Your task to perform on an android device: toggle pop-ups in chrome Image 0: 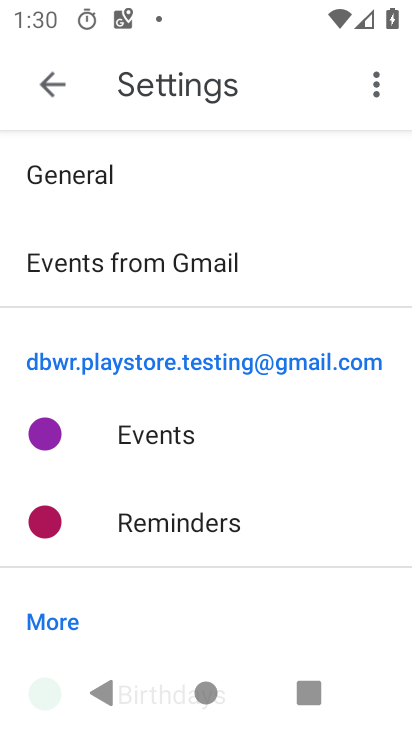
Step 0: press home button
Your task to perform on an android device: toggle pop-ups in chrome Image 1: 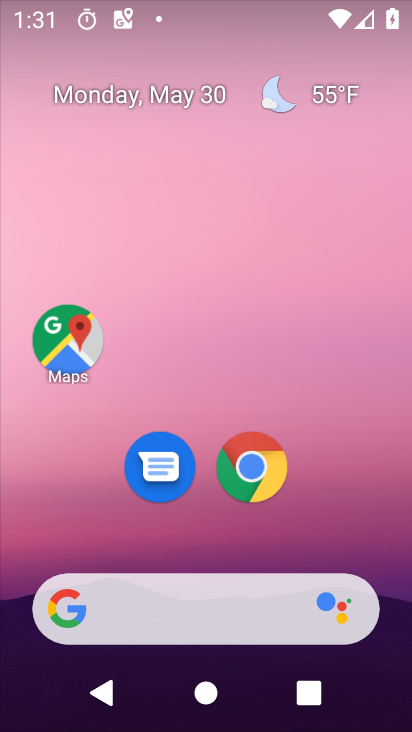
Step 1: click (256, 455)
Your task to perform on an android device: toggle pop-ups in chrome Image 2: 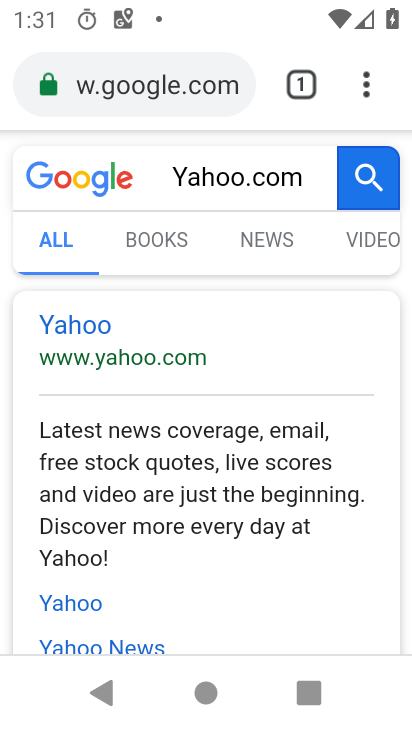
Step 2: click (366, 74)
Your task to perform on an android device: toggle pop-ups in chrome Image 3: 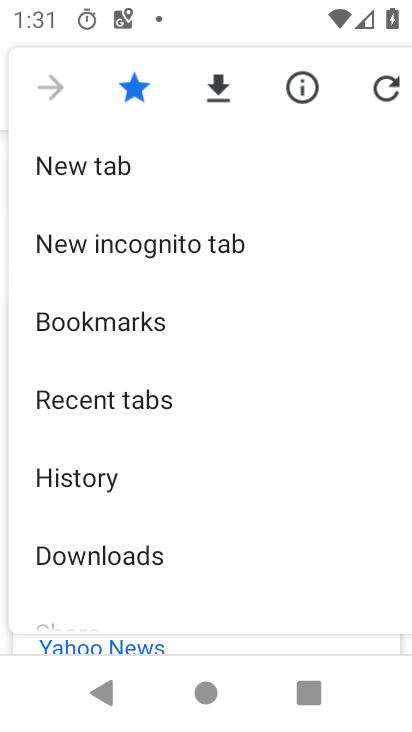
Step 3: drag from (294, 589) to (270, 301)
Your task to perform on an android device: toggle pop-ups in chrome Image 4: 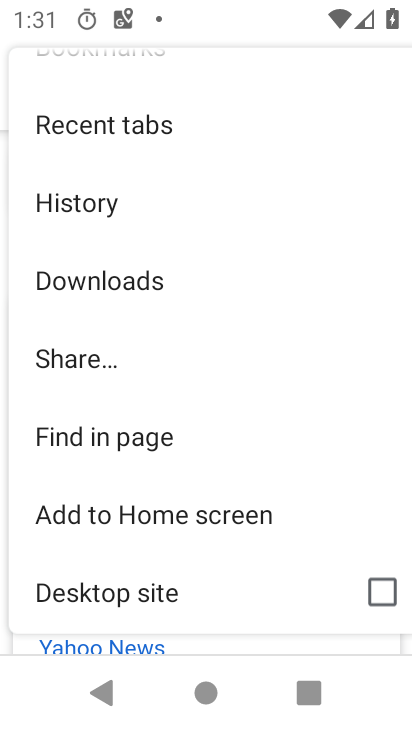
Step 4: drag from (248, 587) to (263, 260)
Your task to perform on an android device: toggle pop-ups in chrome Image 5: 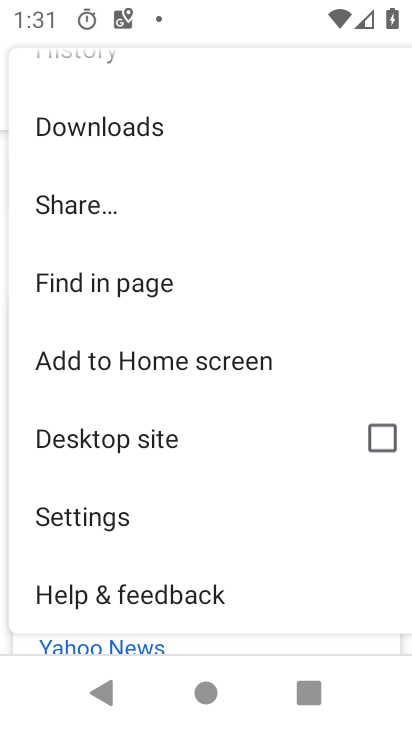
Step 5: click (81, 514)
Your task to perform on an android device: toggle pop-ups in chrome Image 6: 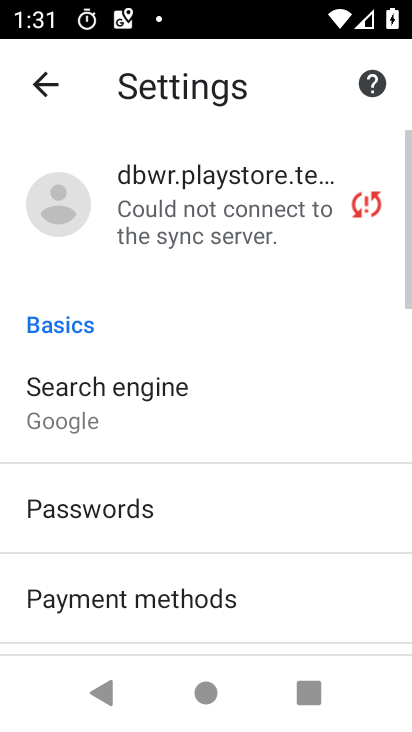
Step 6: drag from (293, 621) to (289, 244)
Your task to perform on an android device: toggle pop-ups in chrome Image 7: 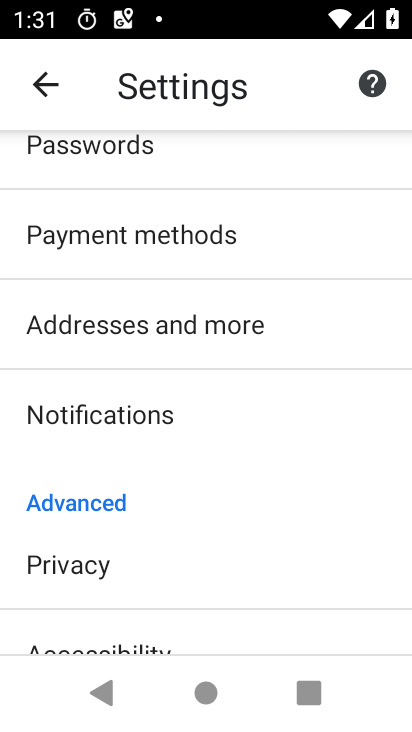
Step 7: drag from (226, 635) to (256, 286)
Your task to perform on an android device: toggle pop-ups in chrome Image 8: 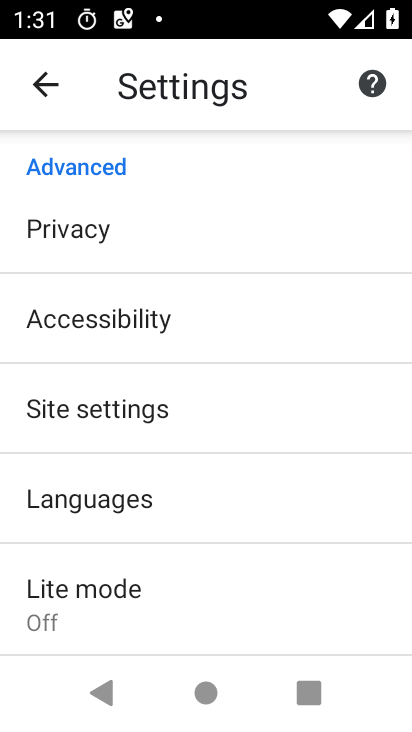
Step 8: click (106, 411)
Your task to perform on an android device: toggle pop-ups in chrome Image 9: 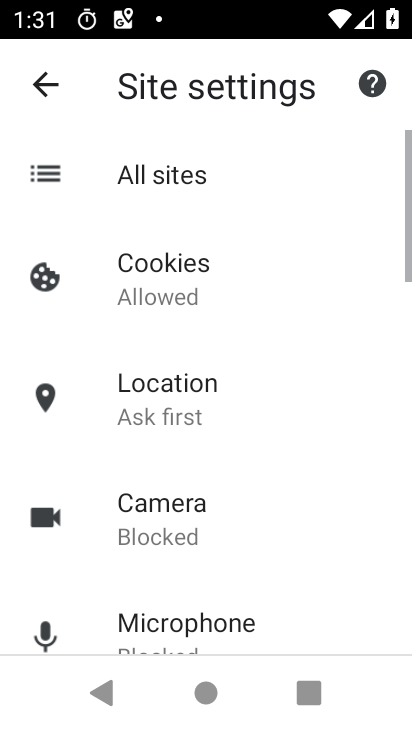
Step 9: drag from (284, 584) to (285, 364)
Your task to perform on an android device: toggle pop-ups in chrome Image 10: 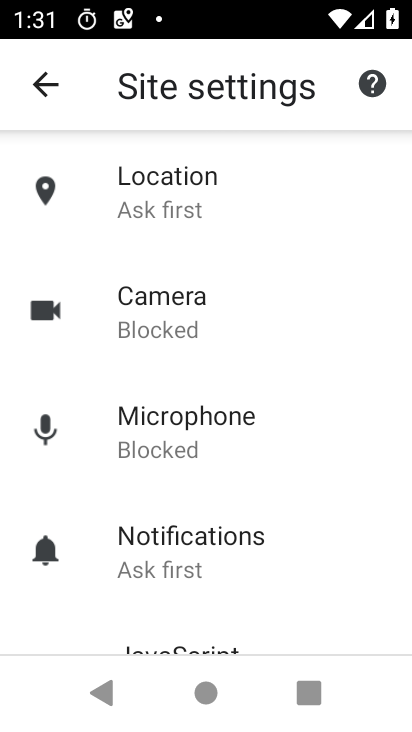
Step 10: drag from (277, 592) to (280, 267)
Your task to perform on an android device: toggle pop-ups in chrome Image 11: 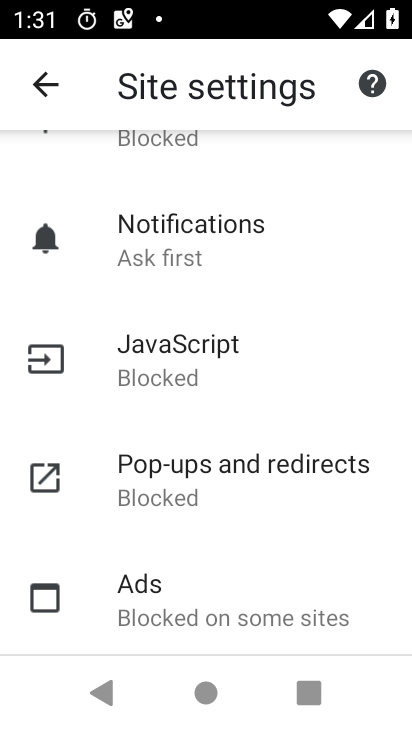
Step 11: click (180, 475)
Your task to perform on an android device: toggle pop-ups in chrome Image 12: 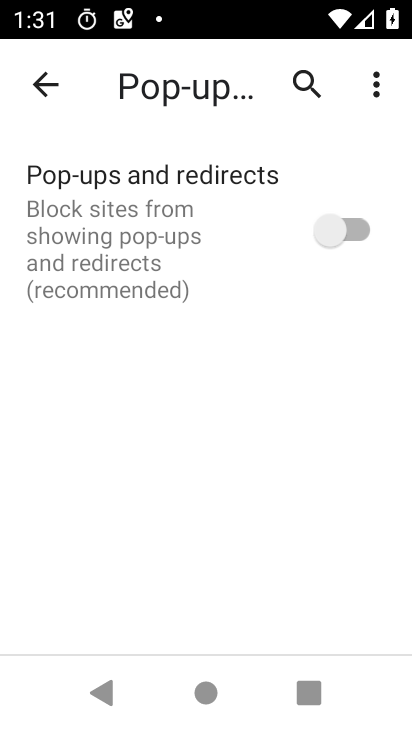
Step 12: click (361, 232)
Your task to perform on an android device: toggle pop-ups in chrome Image 13: 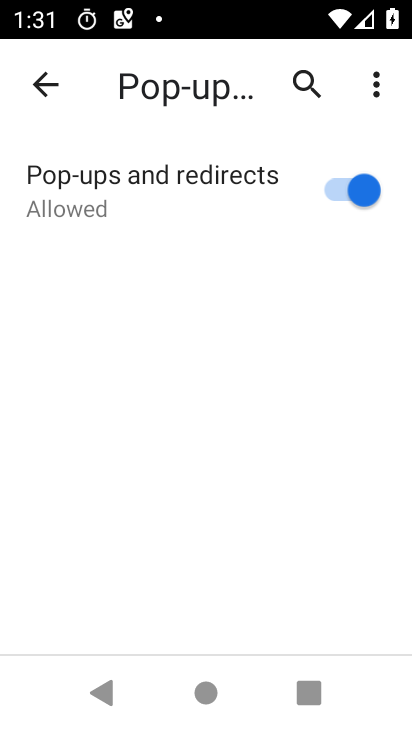
Step 13: task complete